Your task to perform on an android device: Show me popular videos on Youtube Image 0: 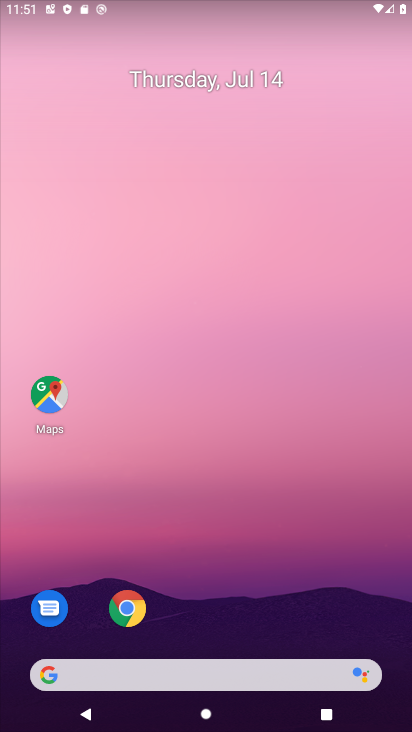
Step 0: drag from (247, 600) to (353, 87)
Your task to perform on an android device: Show me popular videos on Youtube Image 1: 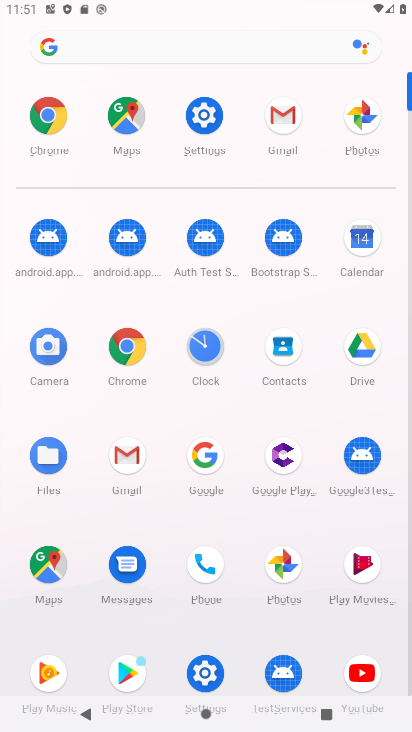
Step 1: click (364, 676)
Your task to perform on an android device: Show me popular videos on Youtube Image 2: 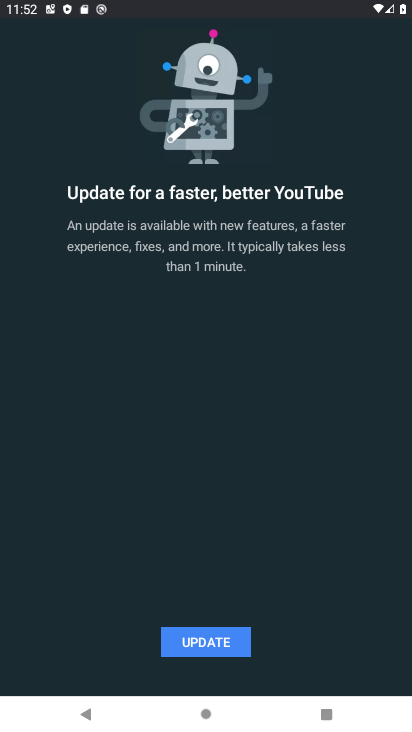
Step 2: press home button
Your task to perform on an android device: Show me popular videos on Youtube Image 3: 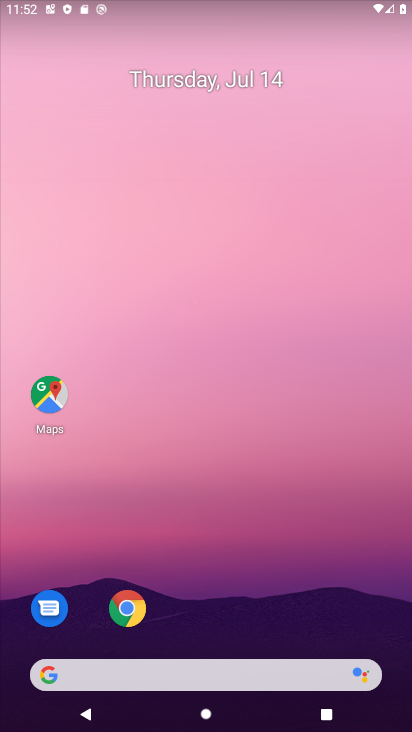
Step 3: drag from (309, 672) to (322, 5)
Your task to perform on an android device: Show me popular videos on Youtube Image 4: 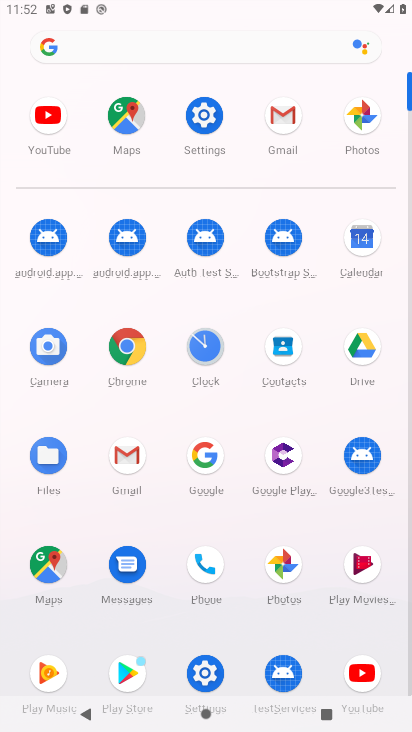
Step 4: click (360, 685)
Your task to perform on an android device: Show me popular videos on Youtube Image 5: 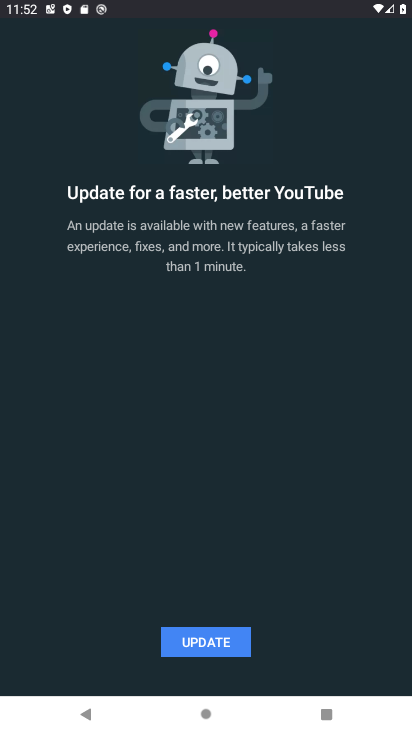
Step 5: click (210, 638)
Your task to perform on an android device: Show me popular videos on Youtube Image 6: 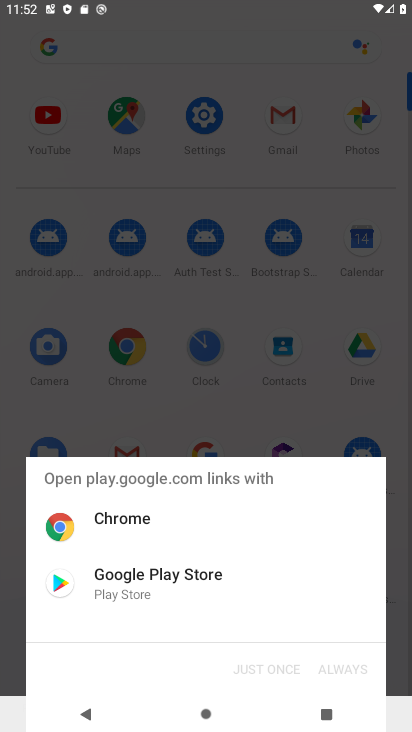
Step 6: click (125, 584)
Your task to perform on an android device: Show me popular videos on Youtube Image 7: 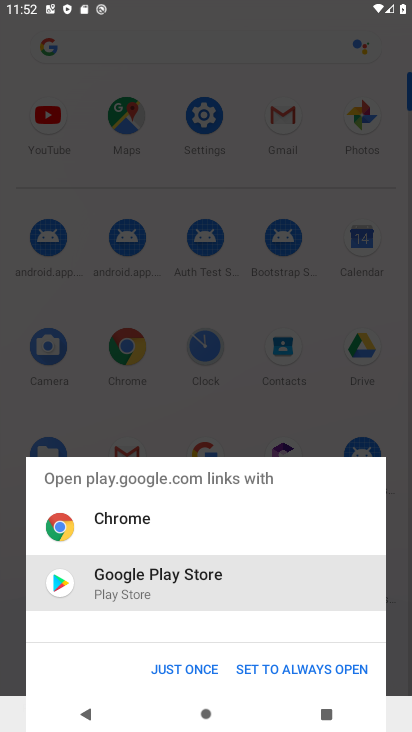
Step 7: click (185, 668)
Your task to perform on an android device: Show me popular videos on Youtube Image 8: 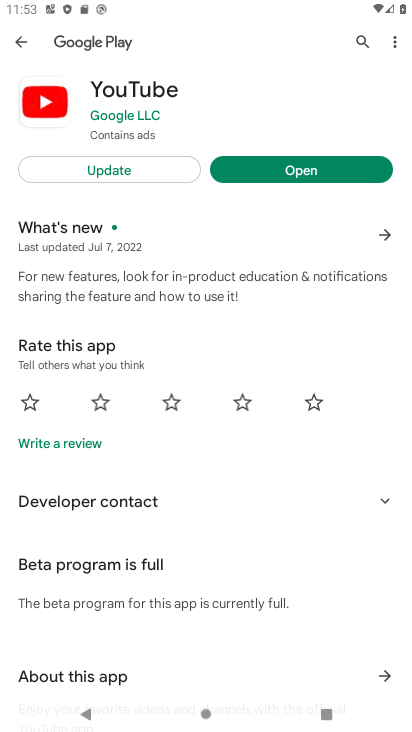
Step 8: click (159, 171)
Your task to perform on an android device: Show me popular videos on Youtube Image 9: 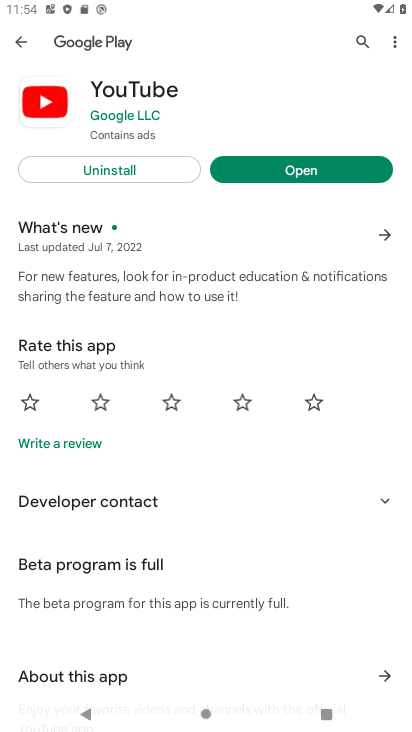
Step 9: click (297, 171)
Your task to perform on an android device: Show me popular videos on Youtube Image 10: 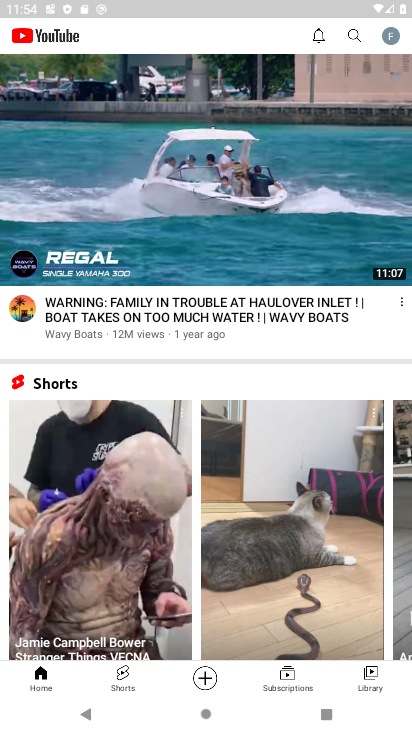
Step 10: task complete